Your task to perform on an android device: Open Google Chrome and open the bookmarks view Image 0: 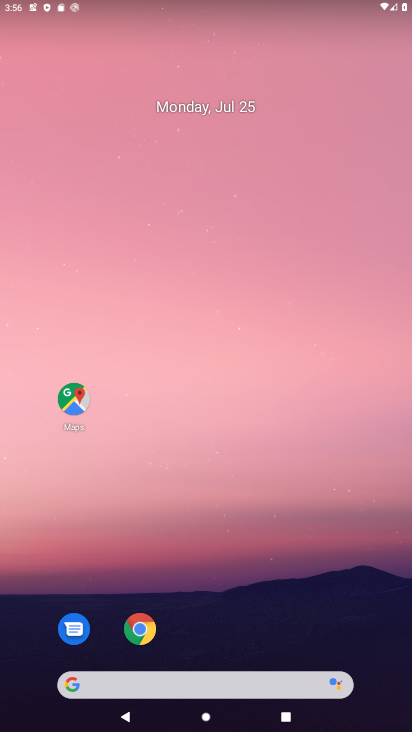
Step 0: drag from (336, 503) to (339, 20)
Your task to perform on an android device: Open Google Chrome and open the bookmarks view Image 1: 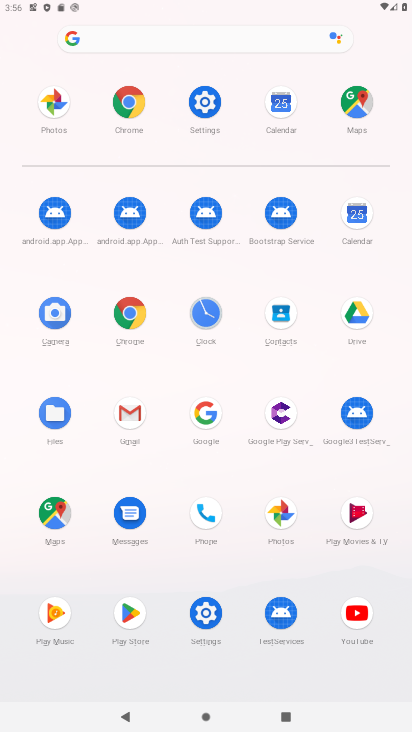
Step 1: click (125, 318)
Your task to perform on an android device: Open Google Chrome and open the bookmarks view Image 2: 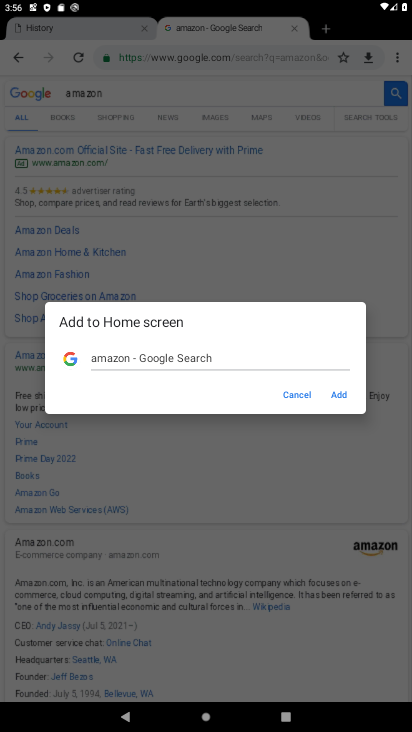
Step 2: click (341, 391)
Your task to perform on an android device: Open Google Chrome and open the bookmarks view Image 3: 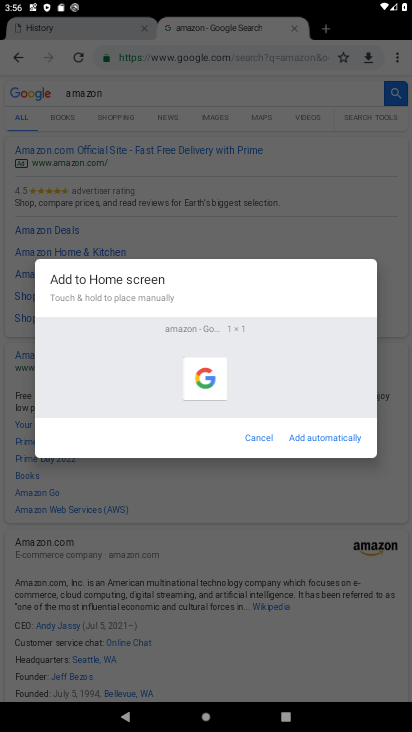
Step 3: click (313, 434)
Your task to perform on an android device: Open Google Chrome and open the bookmarks view Image 4: 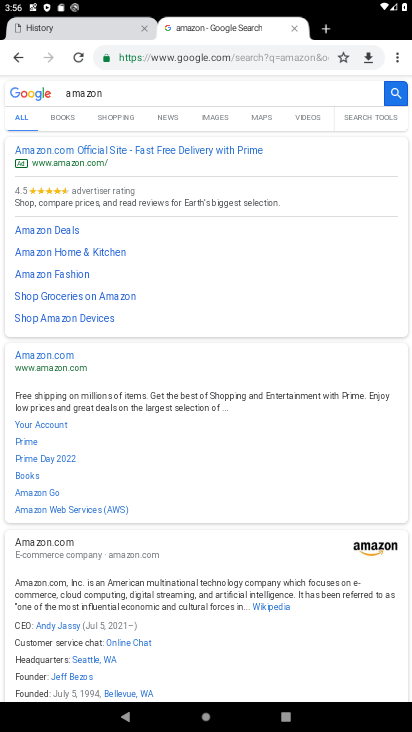
Step 4: click (395, 57)
Your task to perform on an android device: Open Google Chrome and open the bookmarks view Image 5: 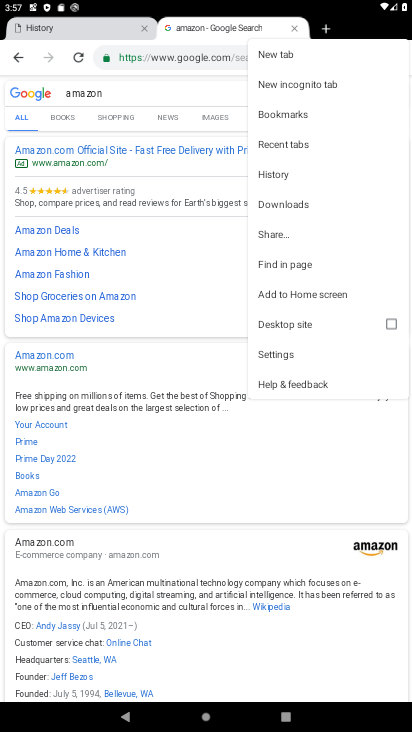
Step 5: click (300, 115)
Your task to perform on an android device: Open Google Chrome and open the bookmarks view Image 6: 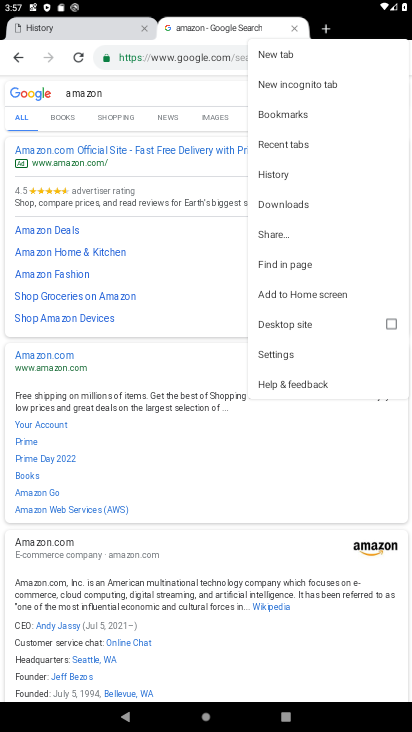
Step 6: click (303, 112)
Your task to perform on an android device: Open Google Chrome and open the bookmarks view Image 7: 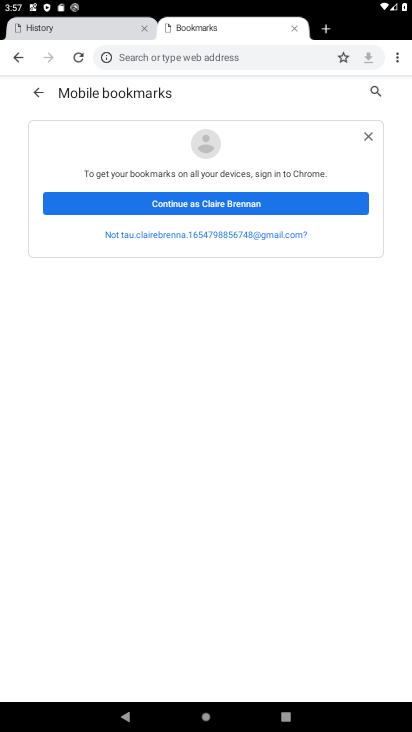
Step 7: task complete